Your task to perform on an android device: snooze an email in the gmail app Image 0: 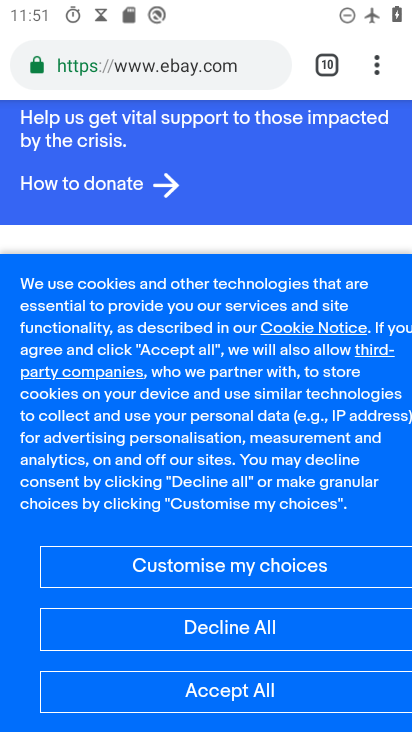
Step 0: press home button
Your task to perform on an android device: snooze an email in the gmail app Image 1: 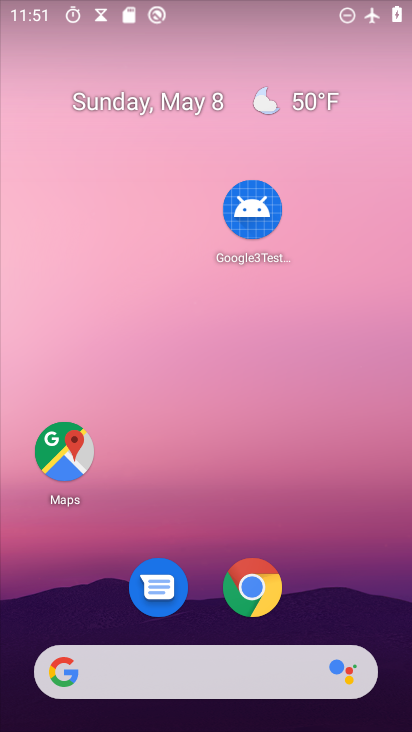
Step 1: drag from (164, 429) to (75, 106)
Your task to perform on an android device: snooze an email in the gmail app Image 2: 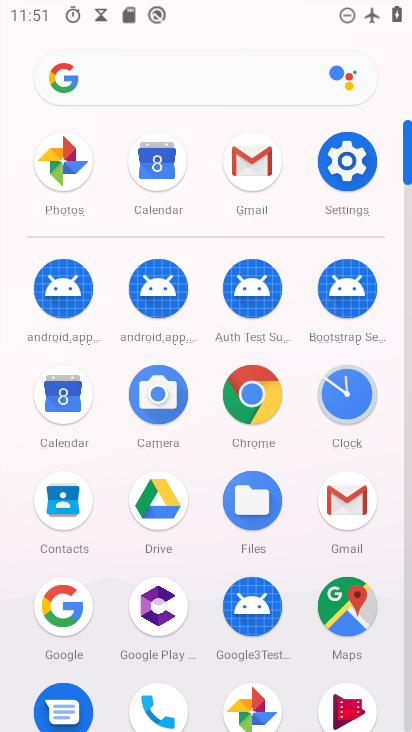
Step 2: click (252, 168)
Your task to perform on an android device: snooze an email in the gmail app Image 3: 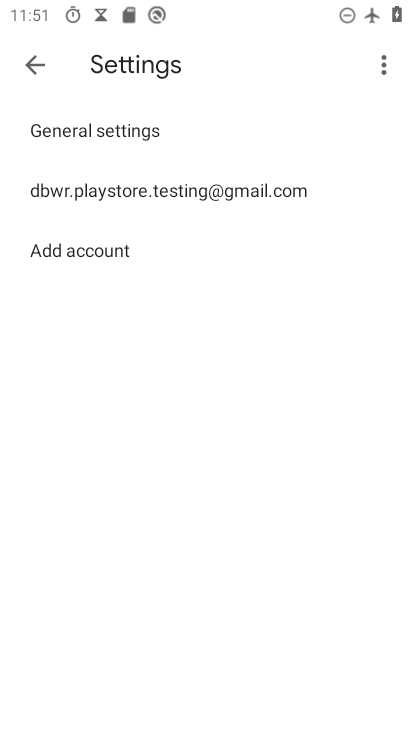
Step 3: task complete